Your task to perform on an android device: toggle show notifications on the lock screen Image 0: 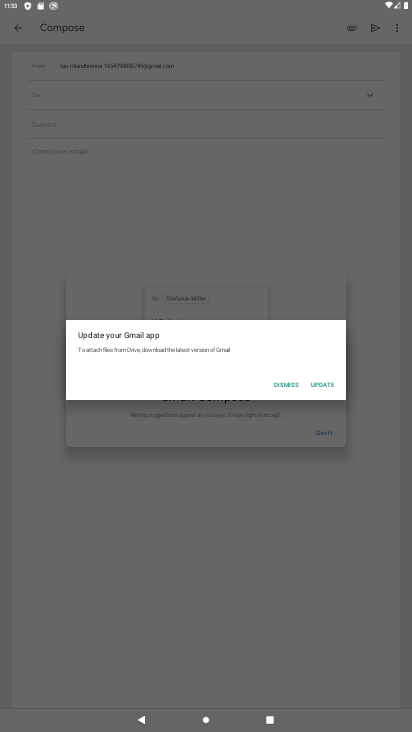
Step 0: press home button
Your task to perform on an android device: toggle show notifications on the lock screen Image 1: 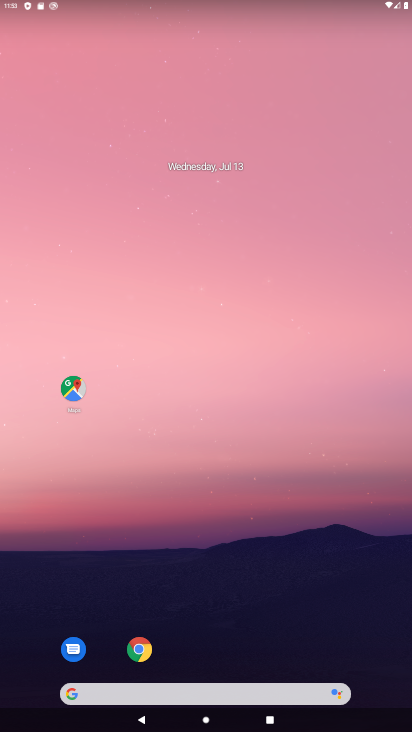
Step 1: drag from (264, 646) to (344, 14)
Your task to perform on an android device: toggle show notifications on the lock screen Image 2: 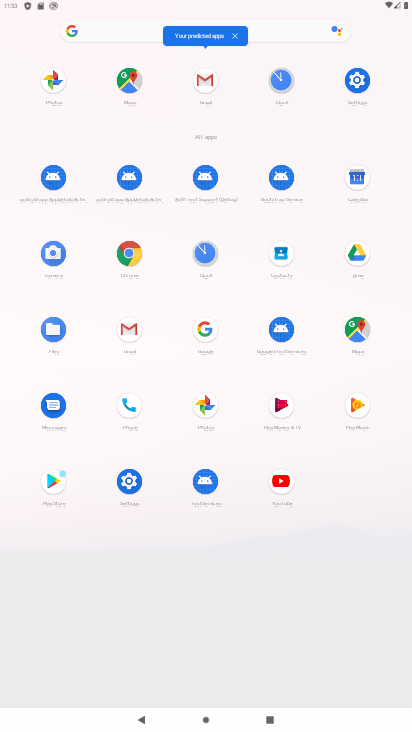
Step 2: click (364, 86)
Your task to perform on an android device: toggle show notifications on the lock screen Image 3: 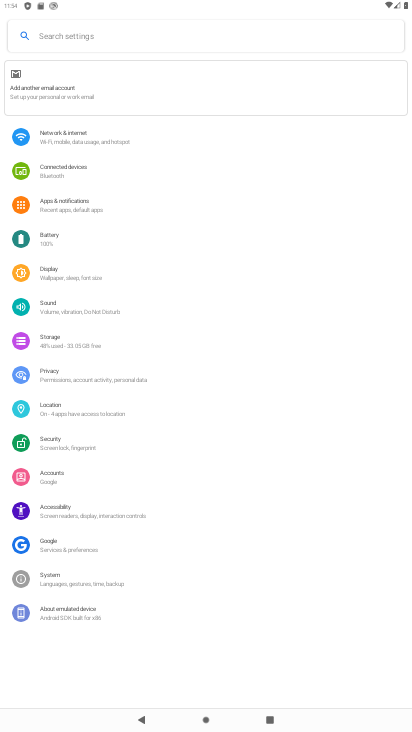
Step 3: click (89, 211)
Your task to perform on an android device: toggle show notifications on the lock screen Image 4: 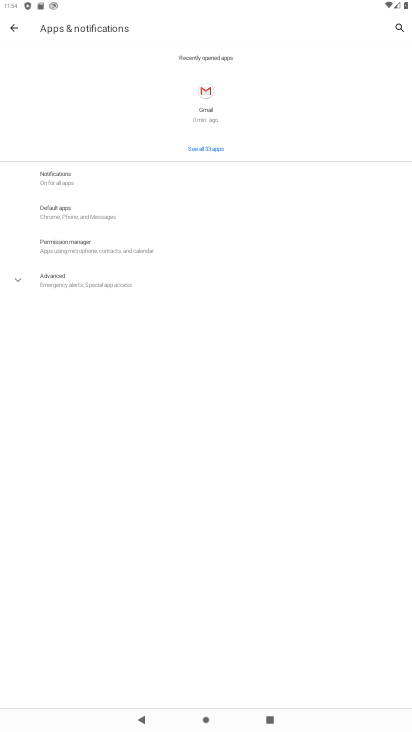
Step 4: click (79, 177)
Your task to perform on an android device: toggle show notifications on the lock screen Image 5: 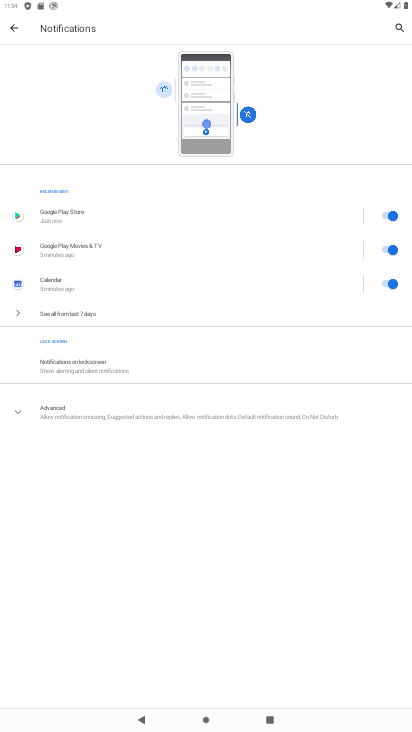
Step 5: click (66, 374)
Your task to perform on an android device: toggle show notifications on the lock screen Image 6: 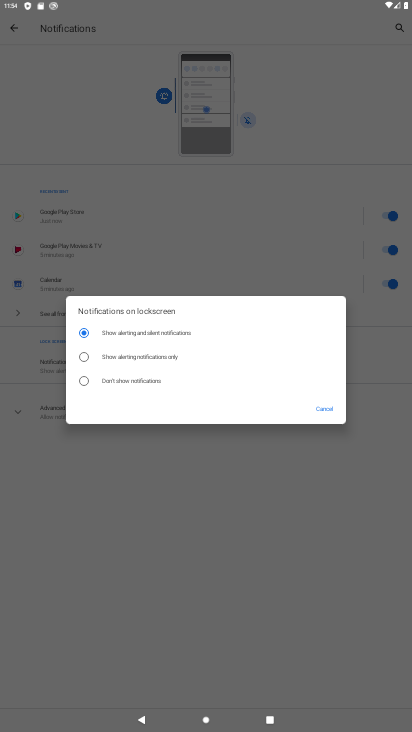
Step 6: click (115, 360)
Your task to perform on an android device: toggle show notifications on the lock screen Image 7: 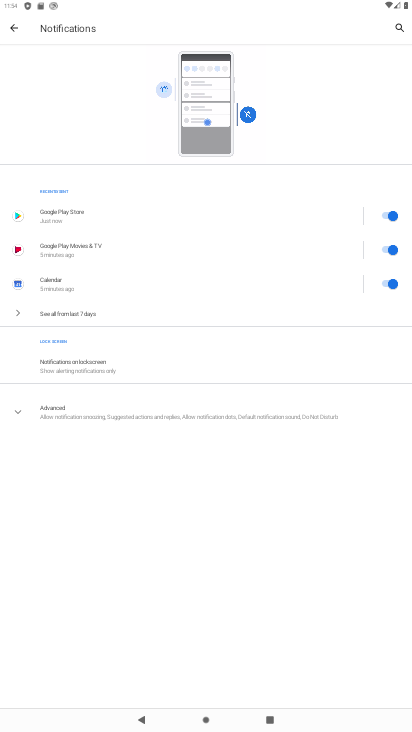
Step 7: task complete